Your task to perform on an android device: open a bookmark in the chrome app Image 0: 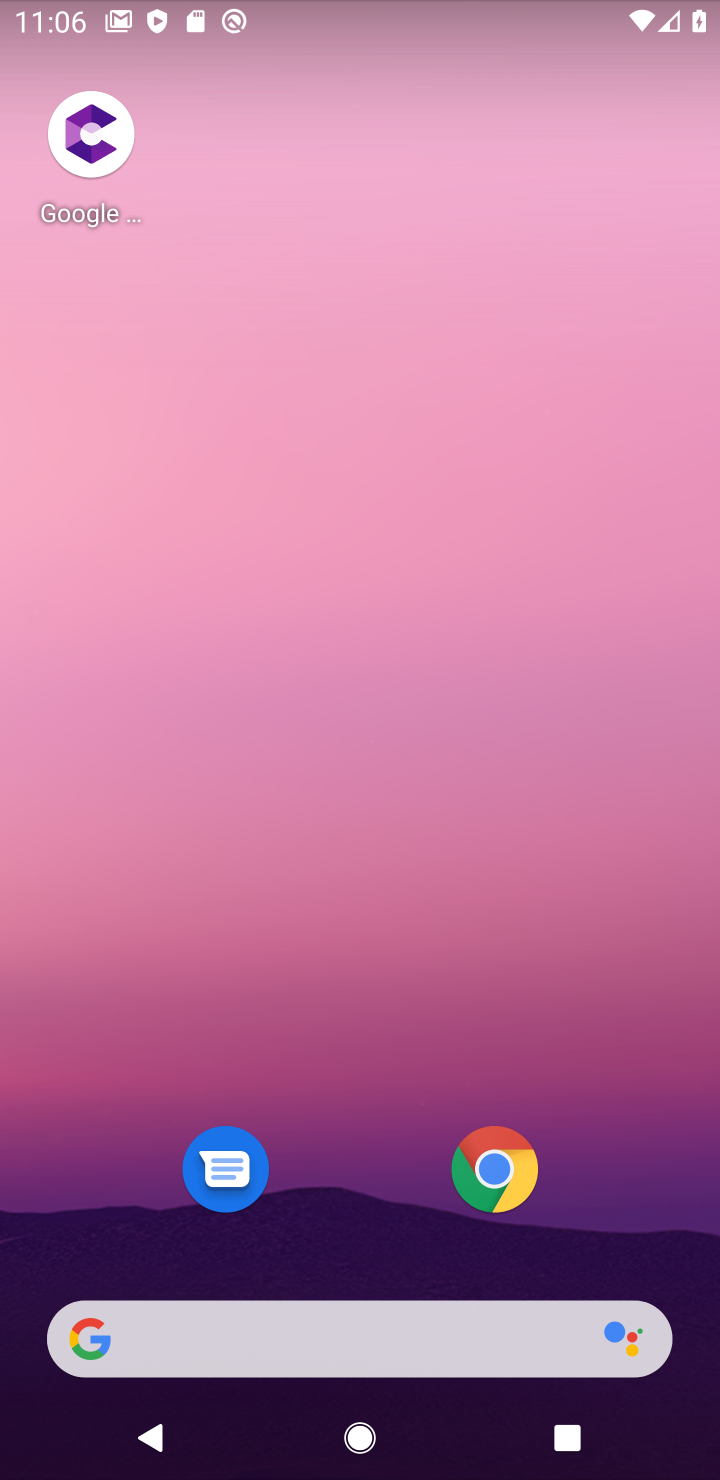
Step 0: drag from (265, 76) to (436, 39)
Your task to perform on an android device: open a bookmark in the chrome app Image 1: 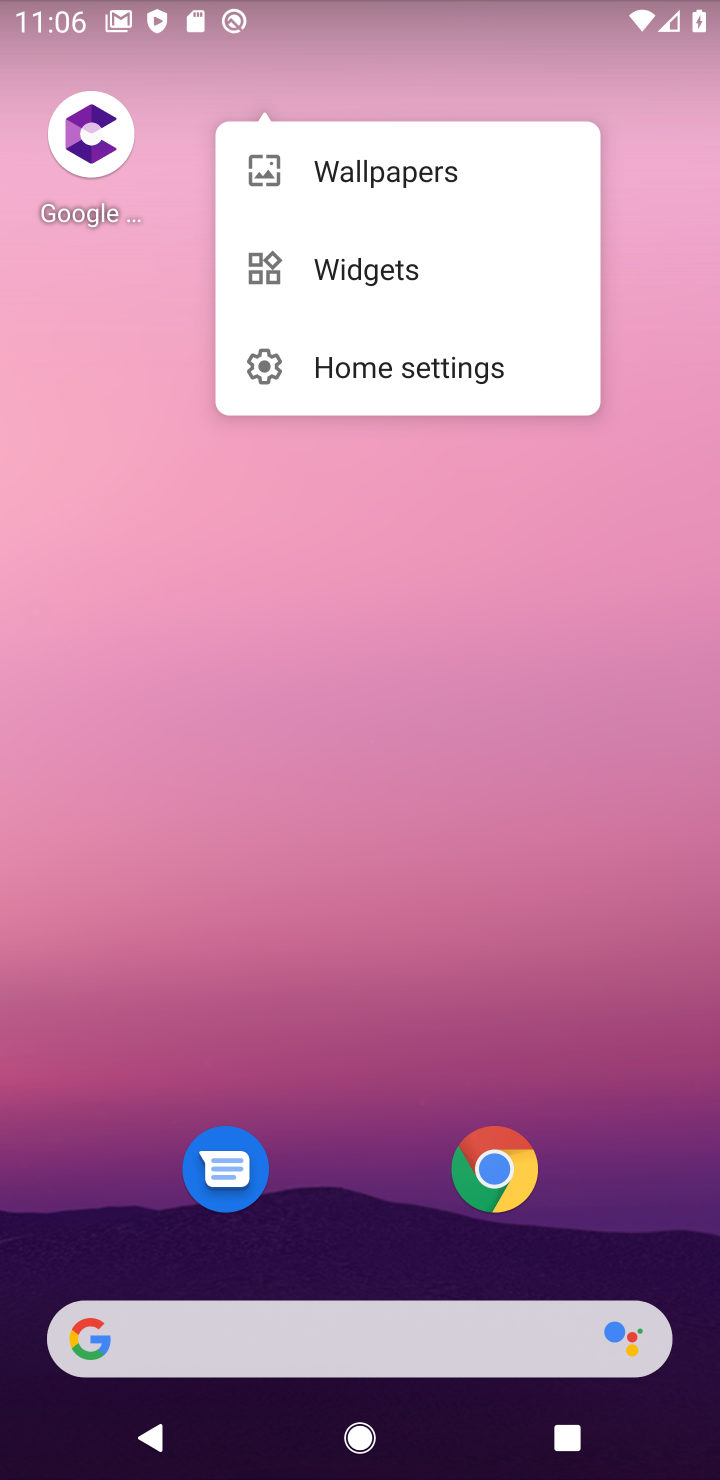
Step 1: click (389, 920)
Your task to perform on an android device: open a bookmark in the chrome app Image 2: 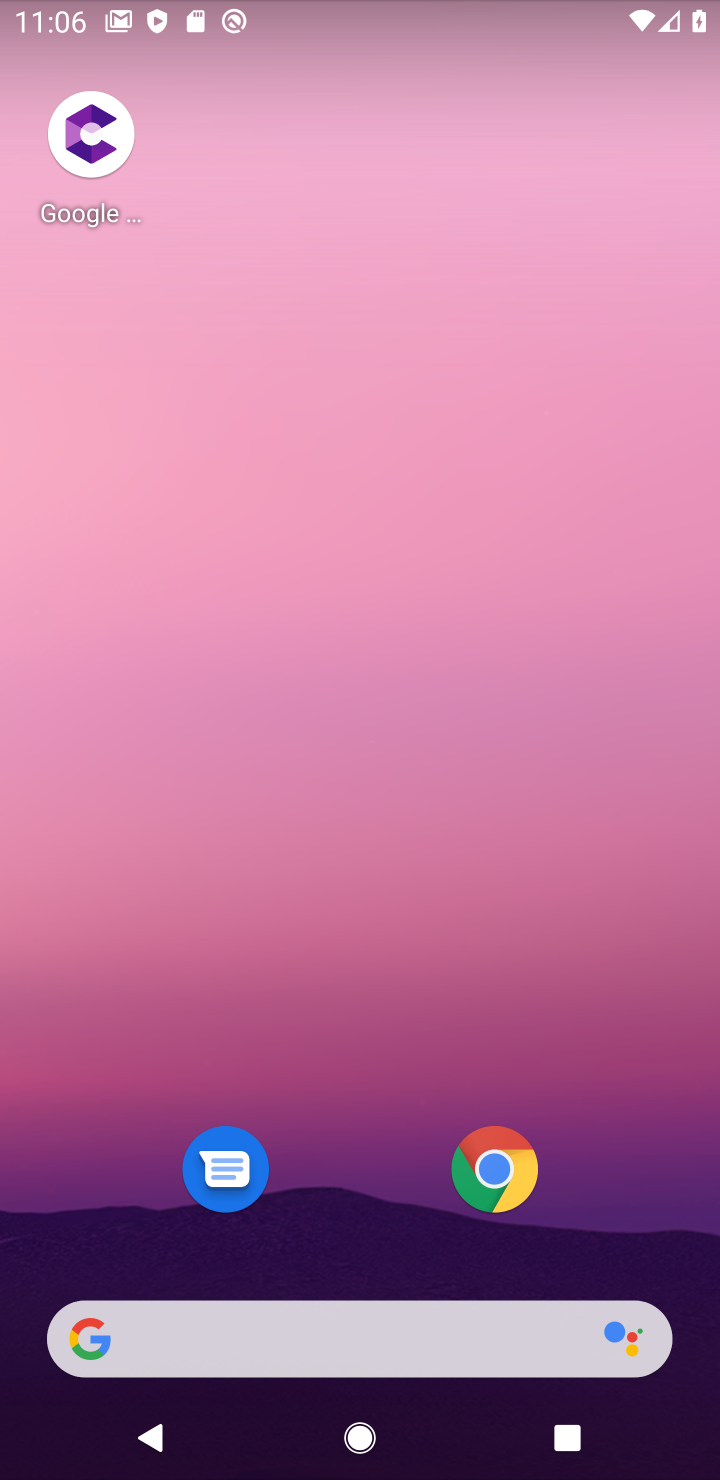
Step 2: drag from (405, 1390) to (457, 18)
Your task to perform on an android device: open a bookmark in the chrome app Image 3: 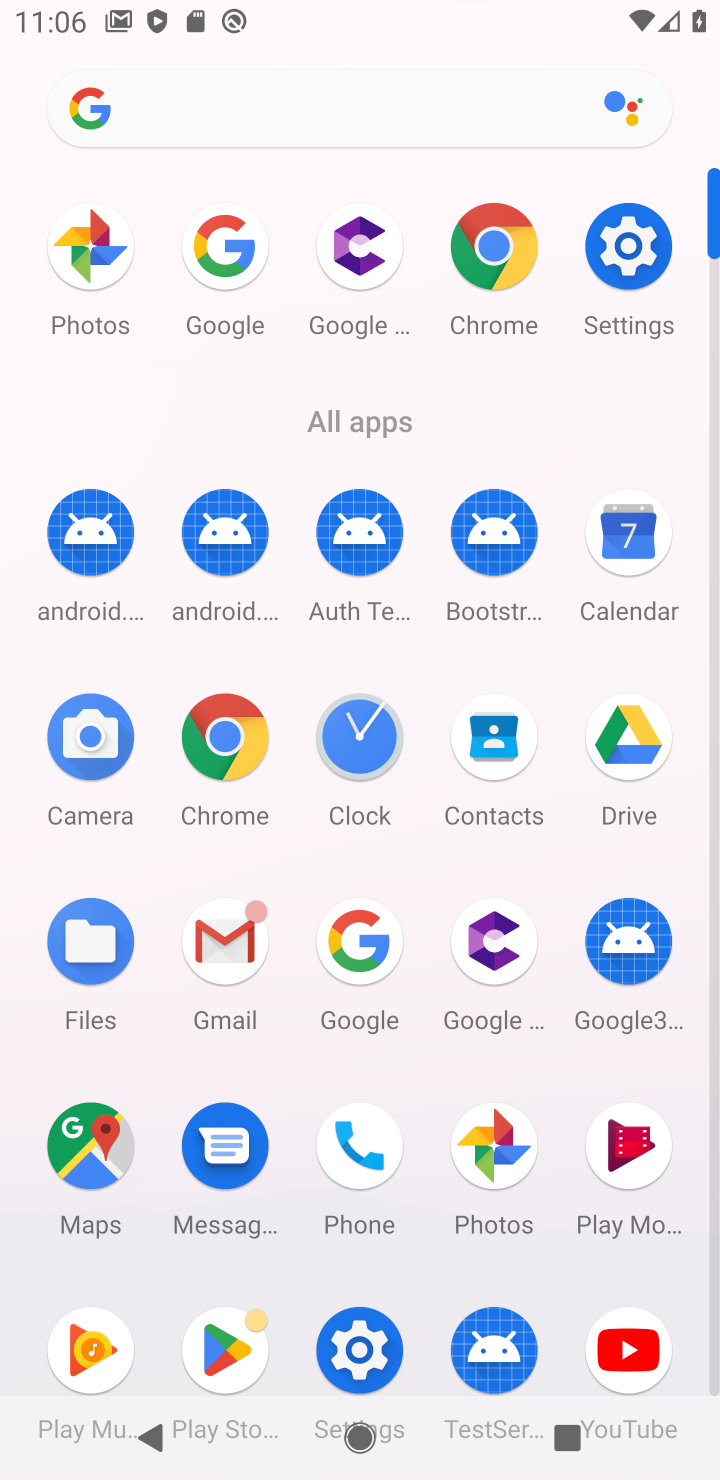
Step 3: click (525, 267)
Your task to perform on an android device: open a bookmark in the chrome app Image 4: 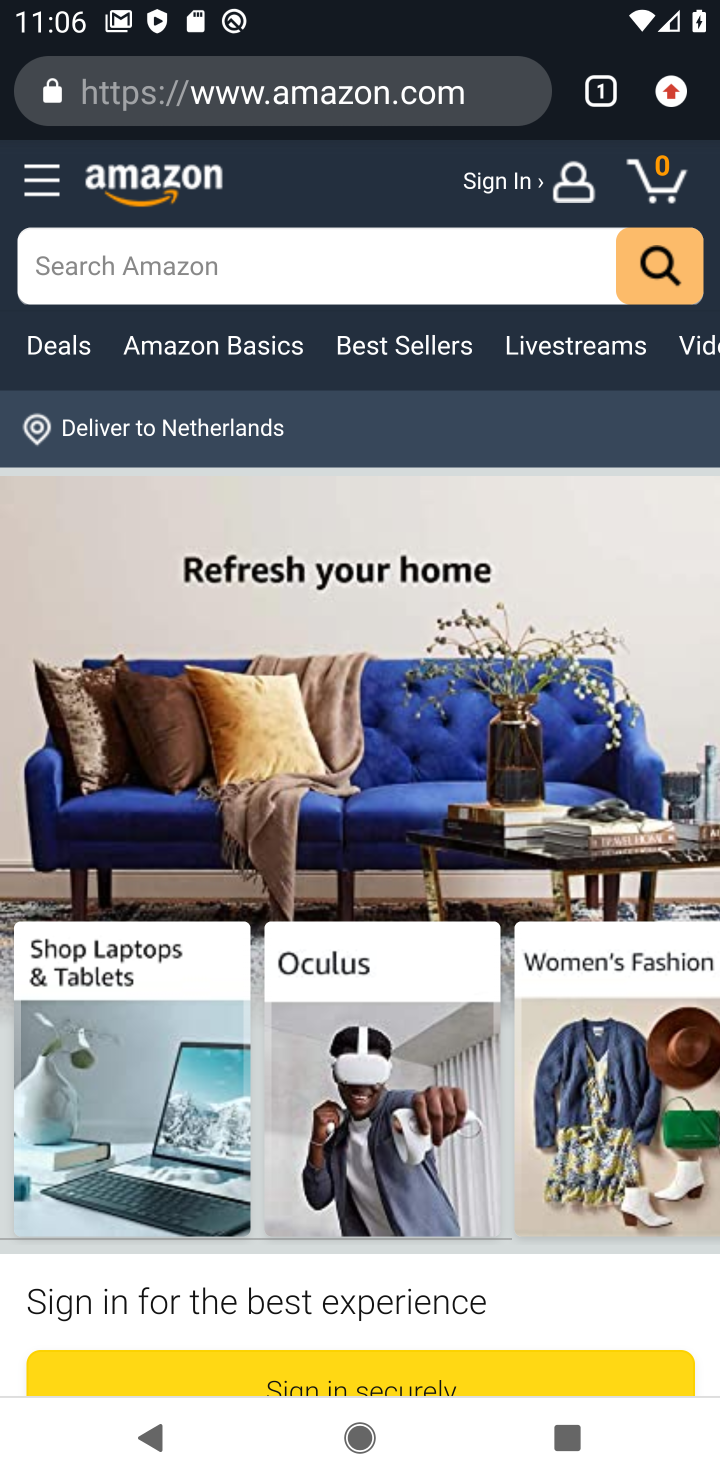
Step 4: drag from (665, 107) to (453, 966)
Your task to perform on an android device: open a bookmark in the chrome app Image 5: 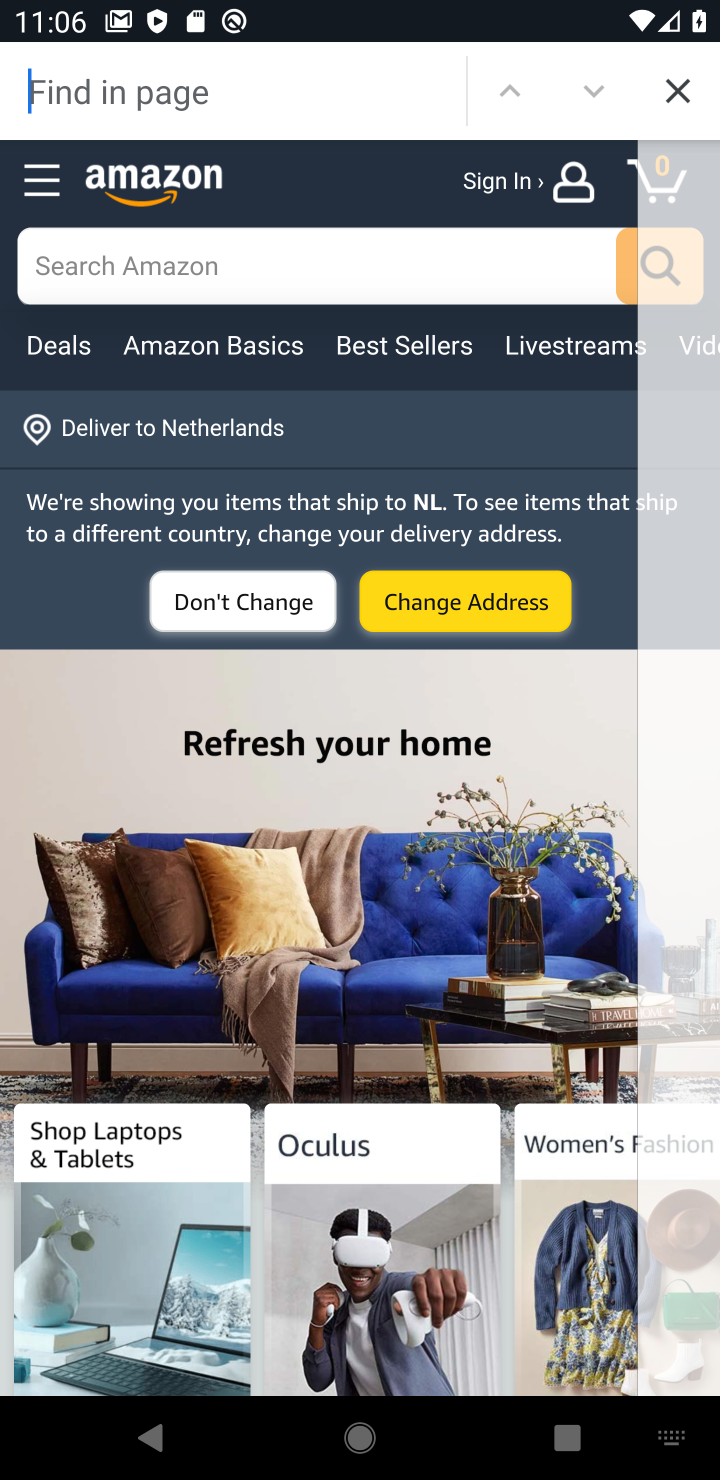
Step 5: click (672, 89)
Your task to perform on an android device: open a bookmark in the chrome app Image 6: 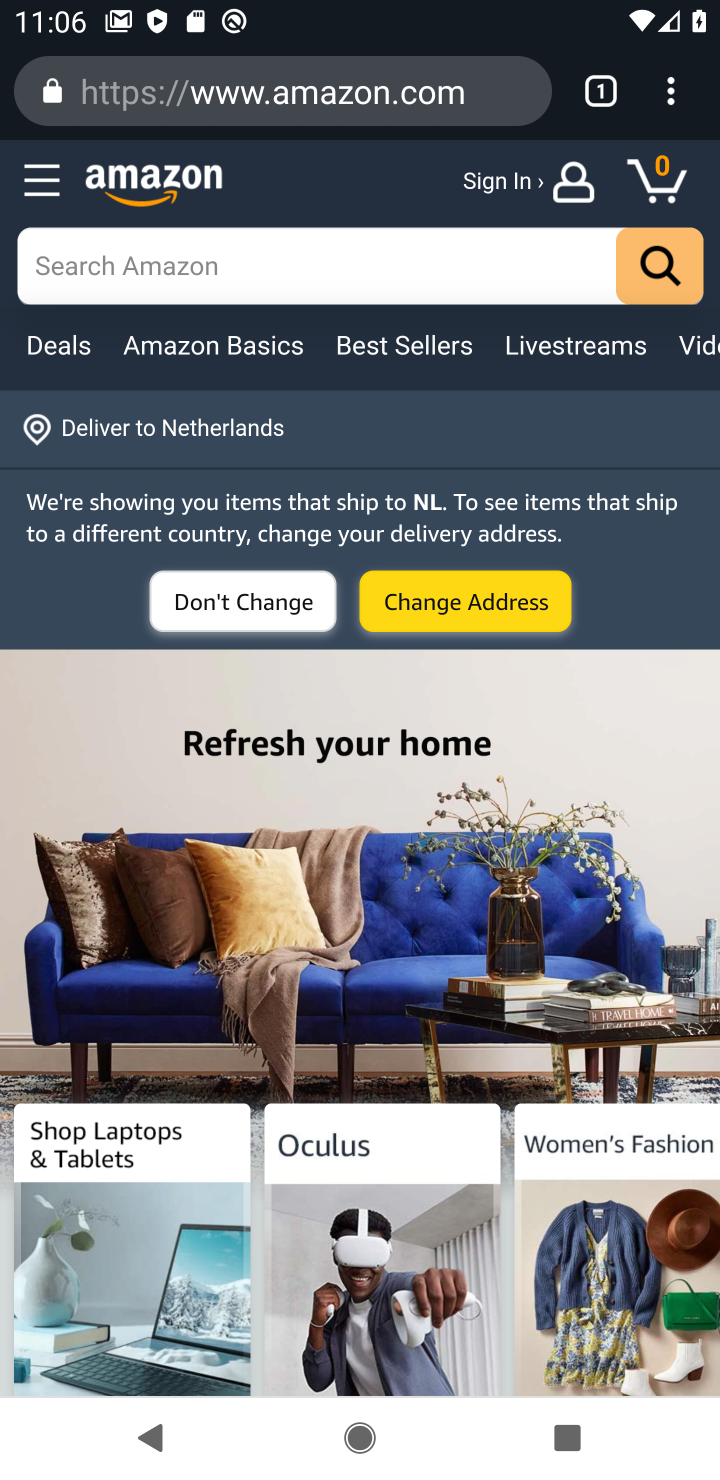
Step 6: click (669, 84)
Your task to perform on an android device: open a bookmark in the chrome app Image 7: 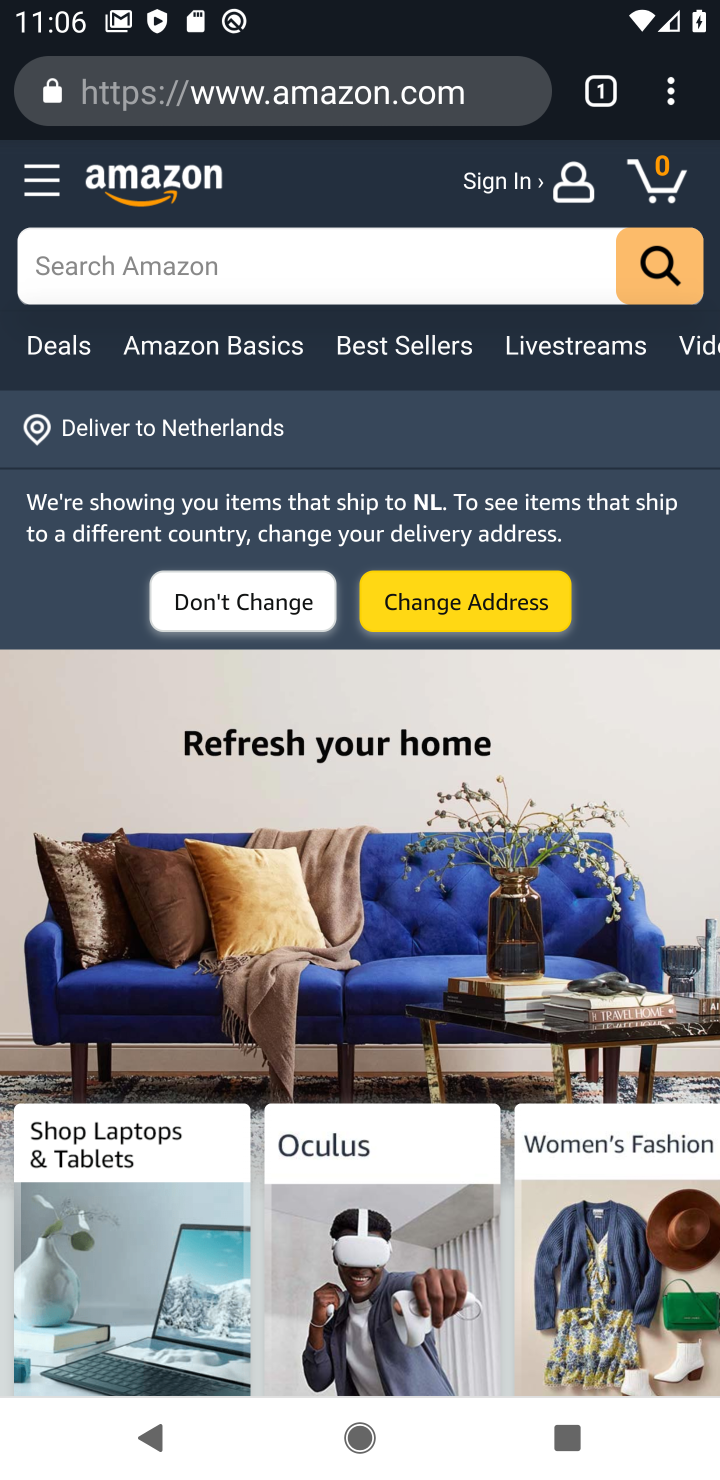
Step 7: drag from (662, 80) to (319, 1212)
Your task to perform on an android device: open a bookmark in the chrome app Image 8: 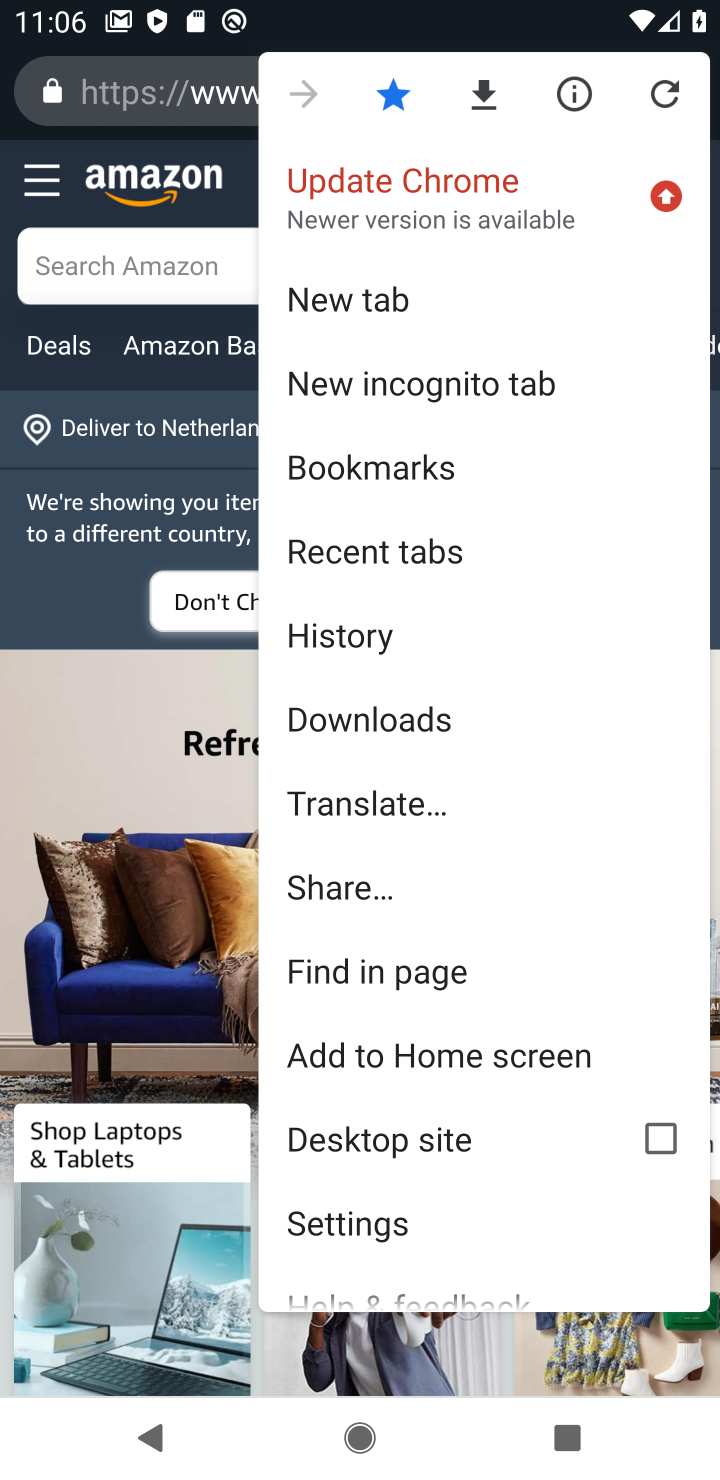
Step 8: click (378, 1237)
Your task to perform on an android device: open a bookmark in the chrome app Image 9: 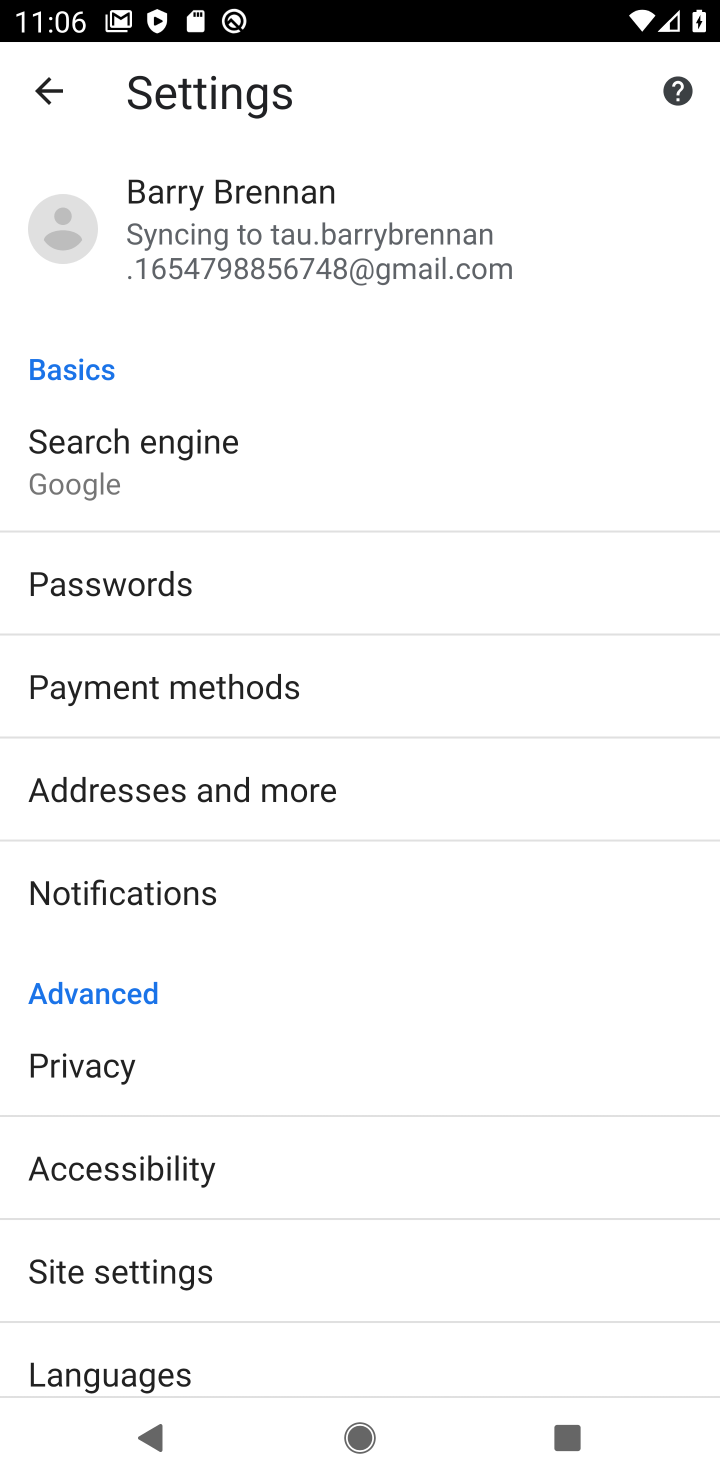
Step 9: task complete